Your task to perform on an android device: Search for Mexican restaurants on Maps Image 0: 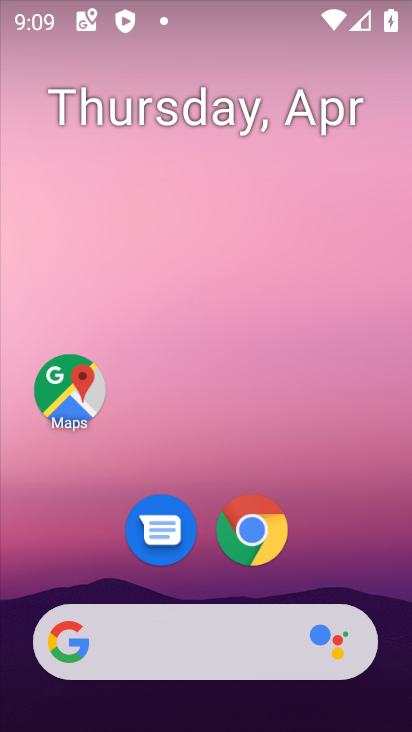
Step 0: drag from (364, 573) to (318, 32)
Your task to perform on an android device: Search for Mexican restaurants on Maps Image 1: 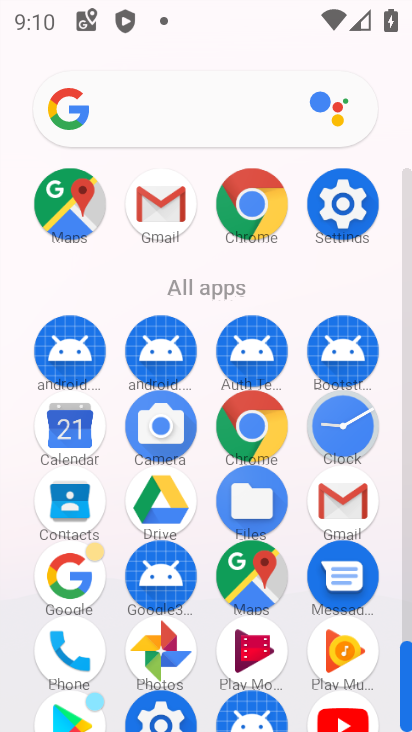
Step 1: click (273, 560)
Your task to perform on an android device: Search for Mexican restaurants on Maps Image 2: 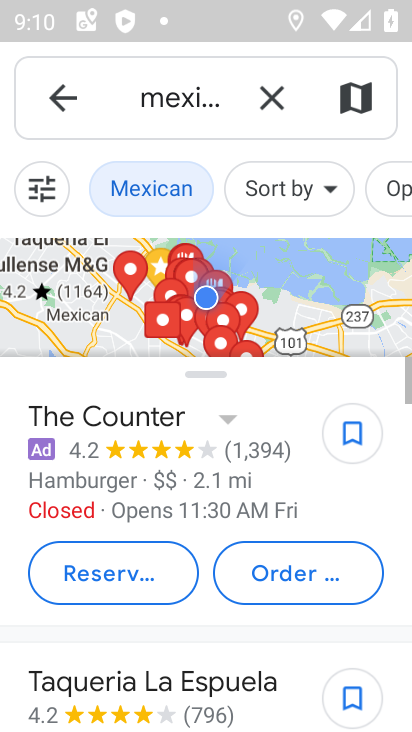
Step 2: task complete